Your task to perform on an android device: Check the settings for the Google Play Movies app Image 0: 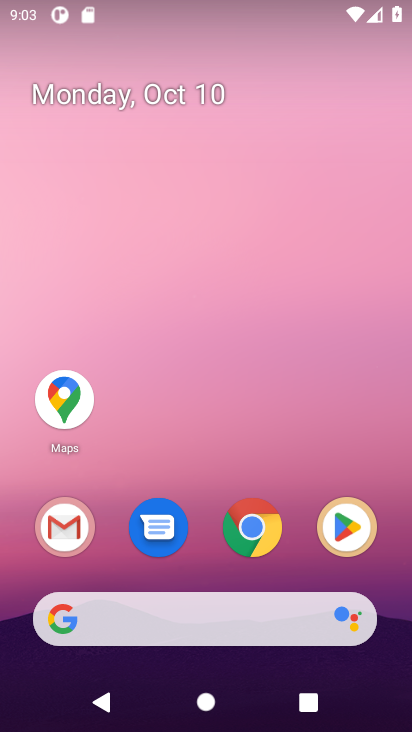
Step 0: drag from (244, 575) to (305, 8)
Your task to perform on an android device: Check the settings for the Google Play Movies app Image 1: 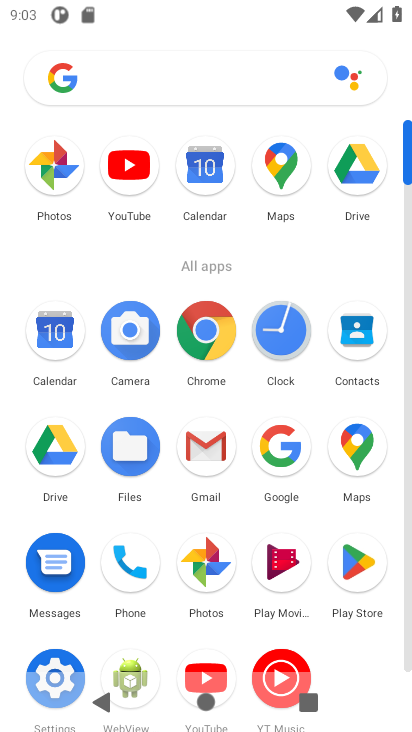
Step 1: click (279, 575)
Your task to perform on an android device: Check the settings for the Google Play Movies app Image 2: 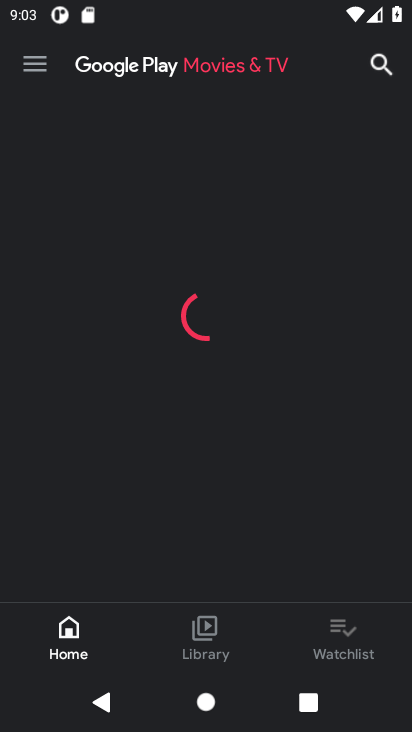
Step 2: click (33, 66)
Your task to perform on an android device: Check the settings for the Google Play Movies app Image 3: 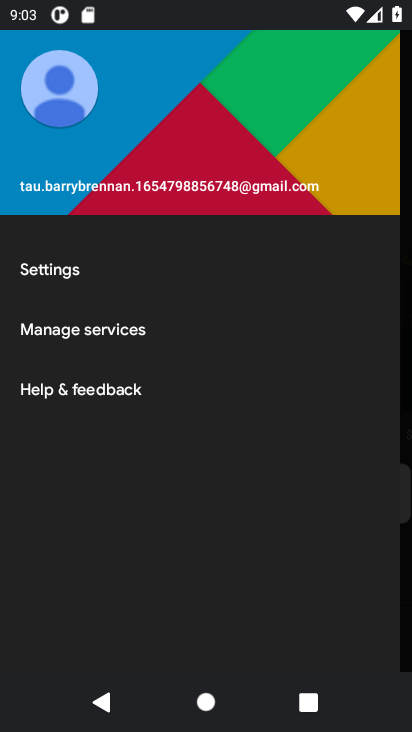
Step 3: click (75, 262)
Your task to perform on an android device: Check the settings for the Google Play Movies app Image 4: 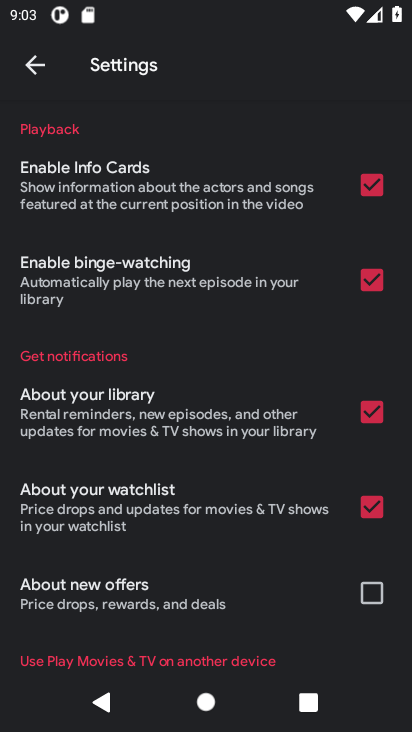
Step 4: click (374, 599)
Your task to perform on an android device: Check the settings for the Google Play Movies app Image 5: 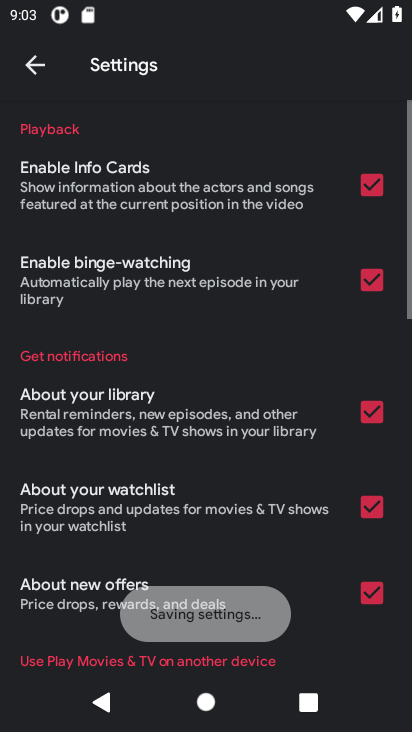
Step 5: click (374, 599)
Your task to perform on an android device: Check the settings for the Google Play Movies app Image 6: 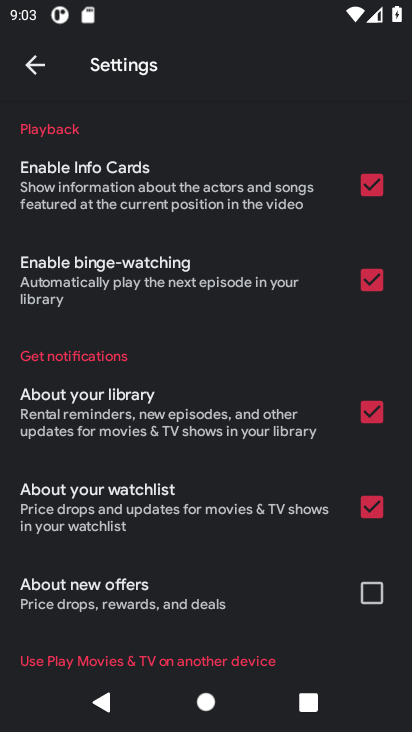
Step 6: drag from (331, 577) to (362, 226)
Your task to perform on an android device: Check the settings for the Google Play Movies app Image 7: 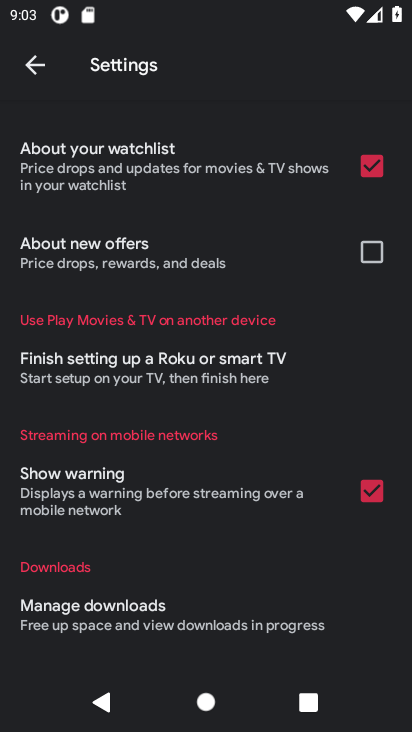
Step 7: click (374, 489)
Your task to perform on an android device: Check the settings for the Google Play Movies app Image 8: 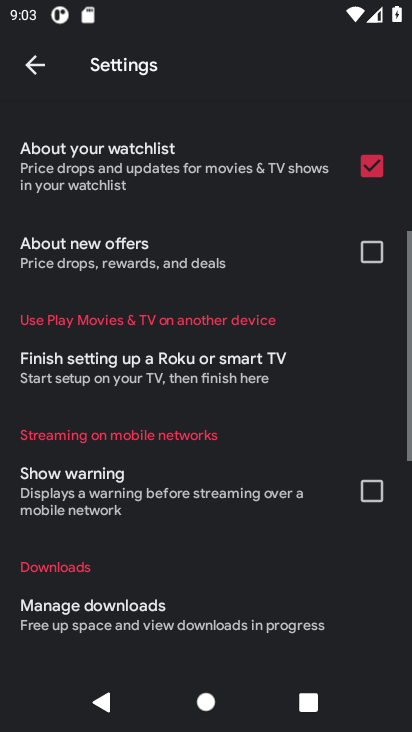
Step 8: click (374, 489)
Your task to perform on an android device: Check the settings for the Google Play Movies app Image 9: 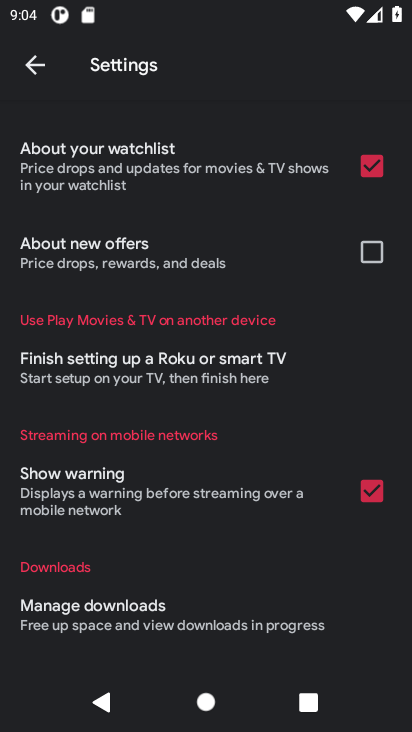
Step 9: drag from (357, 431) to (360, 193)
Your task to perform on an android device: Check the settings for the Google Play Movies app Image 10: 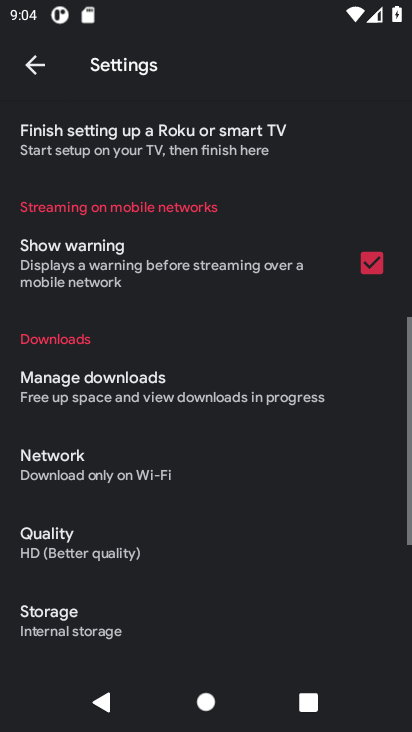
Step 10: drag from (280, 452) to (277, 191)
Your task to perform on an android device: Check the settings for the Google Play Movies app Image 11: 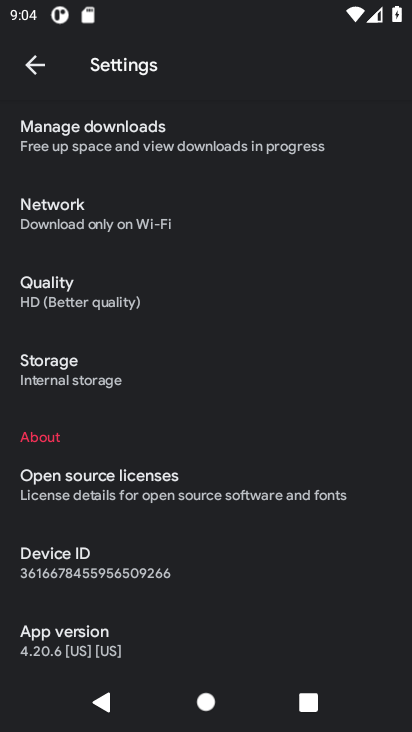
Step 11: drag from (238, 307) to (268, 138)
Your task to perform on an android device: Check the settings for the Google Play Movies app Image 12: 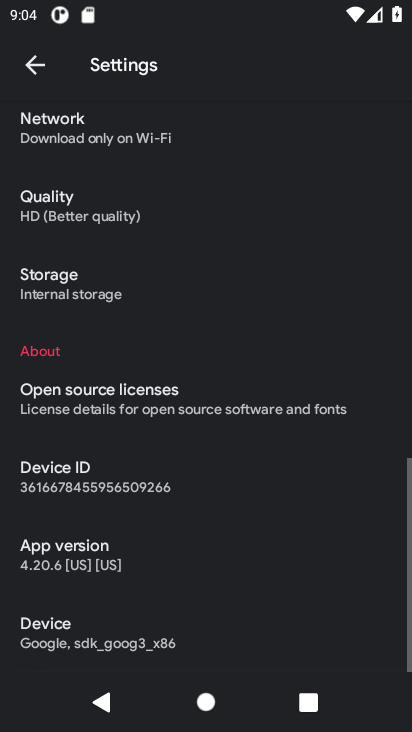
Step 12: drag from (238, 304) to (255, 126)
Your task to perform on an android device: Check the settings for the Google Play Movies app Image 13: 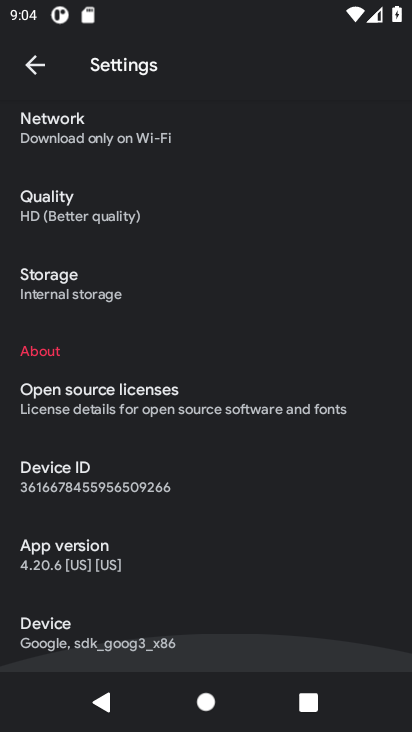
Step 13: drag from (184, 522) to (232, 267)
Your task to perform on an android device: Check the settings for the Google Play Movies app Image 14: 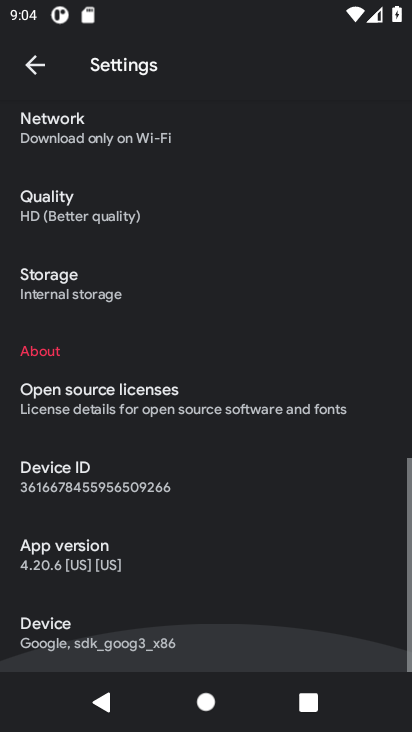
Step 14: drag from (243, 248) to (201, 550)
Your task to perform on an android device: Check the settings for the Google Play Movies app Image 15: 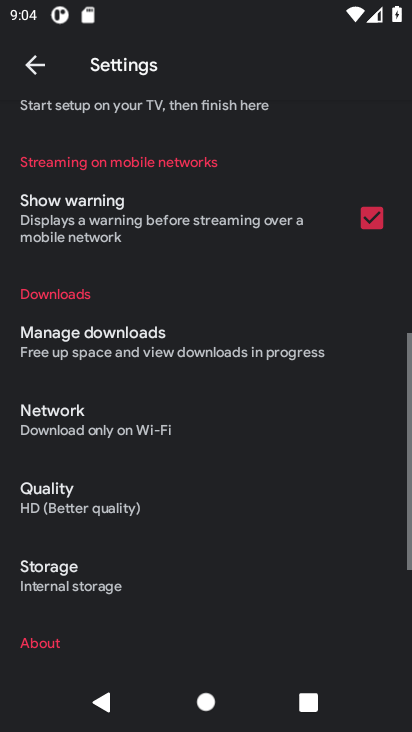
Step 15: drag from (196, 301) to (183, 509)
Your task to perform on an android device: Check the settings for the Google Play Movies app Image 16: 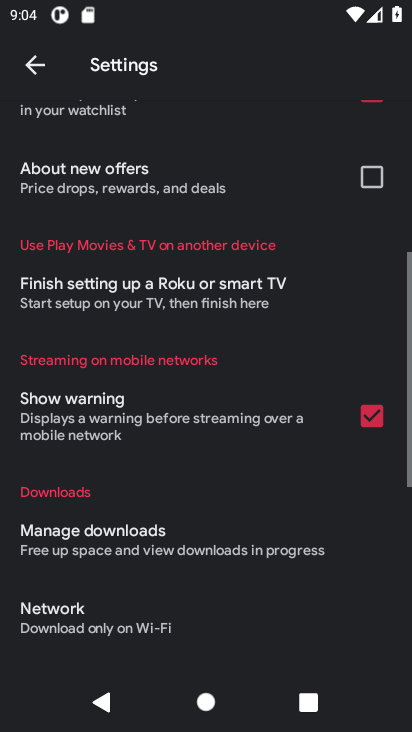
Step 16: drag from (177, 395) to (159, 597)
Your task to perform on an android device: Check the settings for the Google Play Movies app Image 17: 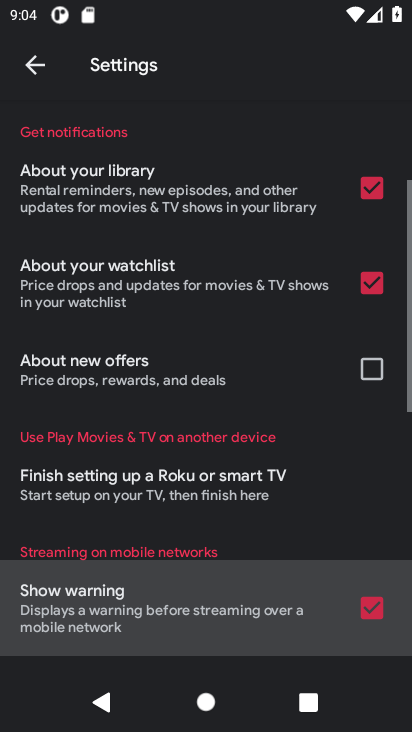
Step 17: drag from (160, 394) to (145, 639)
Your task to perform on an android device: Check the settings for the Google Play Movies app Image 18: 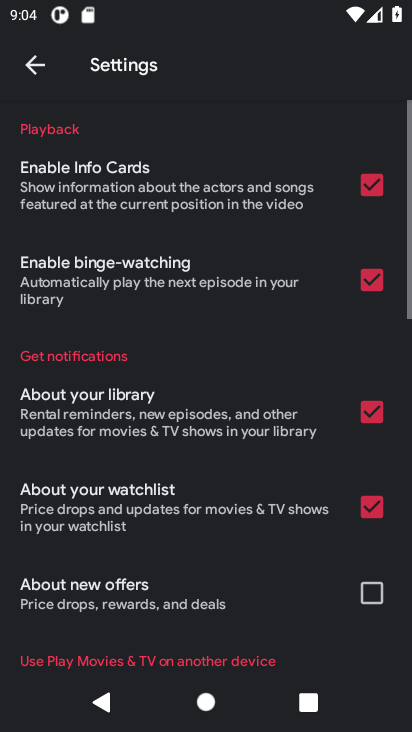
Step 18: drag from (163, 474) to (165, 627)
Your task to perform on an android device: Check the settings for the Google Play Movies app Image 19: 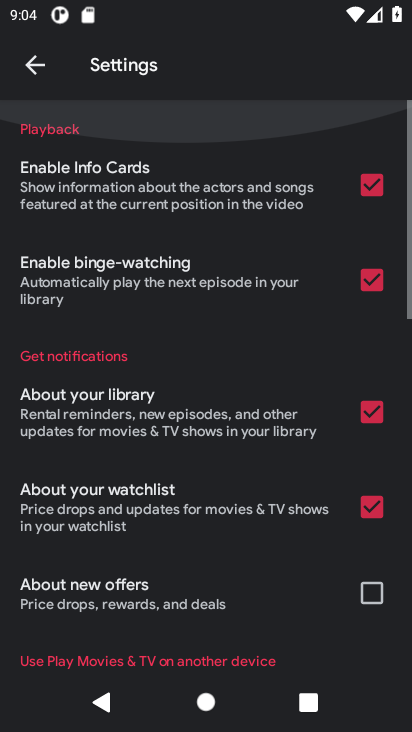
Step 19: drag from (250, 244) to (248, 494)
Your task to perform on an android device: Check the settings for the Google Play Movies app Image 20: 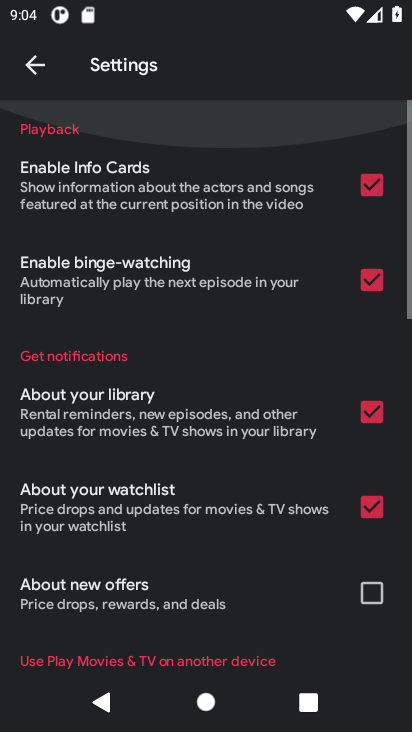
Step 20: drag from (244, 147) to (215, 372)
Your task to perform on an android device: Check the settings for the Google Play Movies app Image 21: 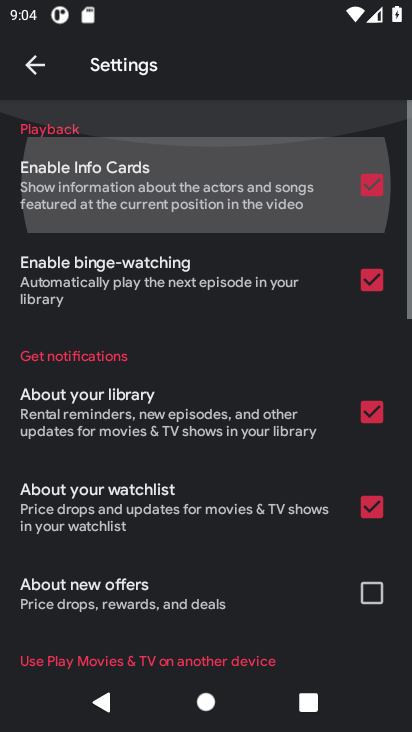
Step 21: drag from (176, 480) to (242, 125)
Your task to perform on an android device: Check the settings for the Google Play Movies app Image 22: 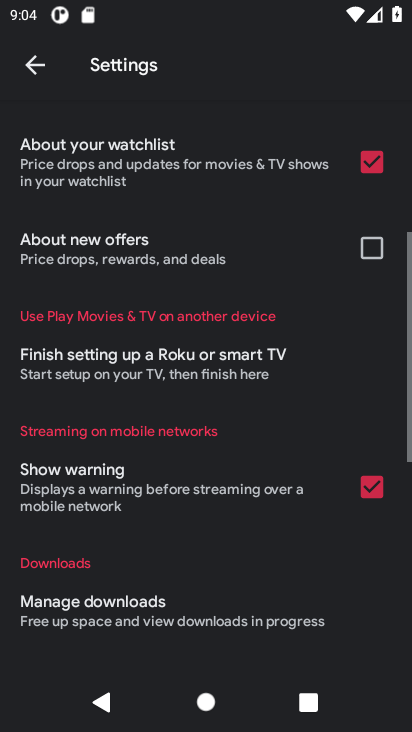
Step 22: drag from (213, 446) to (256, 168)
Your task to perform on an android device: Check the settings for the Google Play Movies app Image 23: 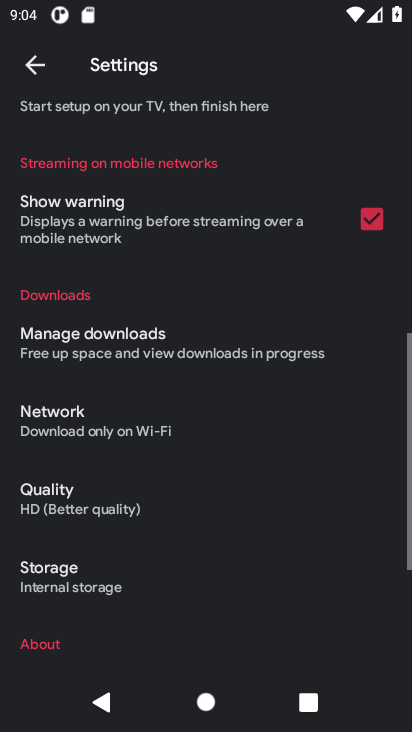
Step 23: drag from (205, 412) to (262, 181)
Your task to perform on an android device: Check the settings for the Google Play Movies app Image 24: 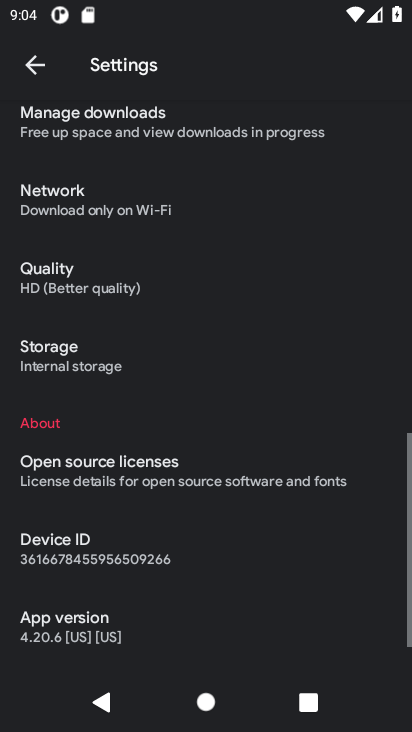
Step 24: drag from (248, 372) to (208, 206)
Your task to perform on an android device: Check the settings for the Google Play Movies app Image 25: 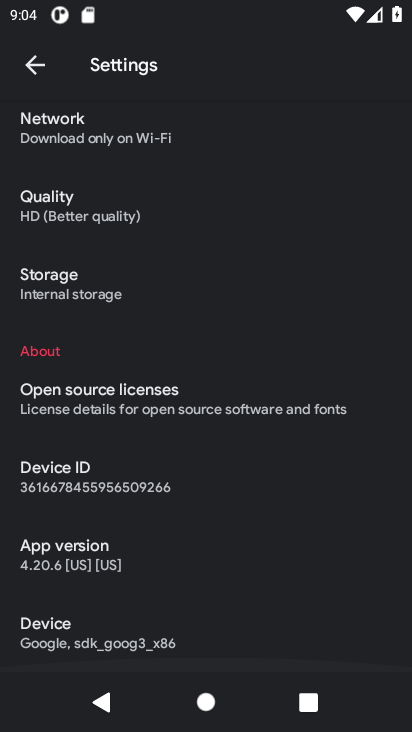
Step 25: drag from (201, 385) to (199, 251)
Your task to perform on an android device: Check the settings for the Google Play Movies app Image 26: 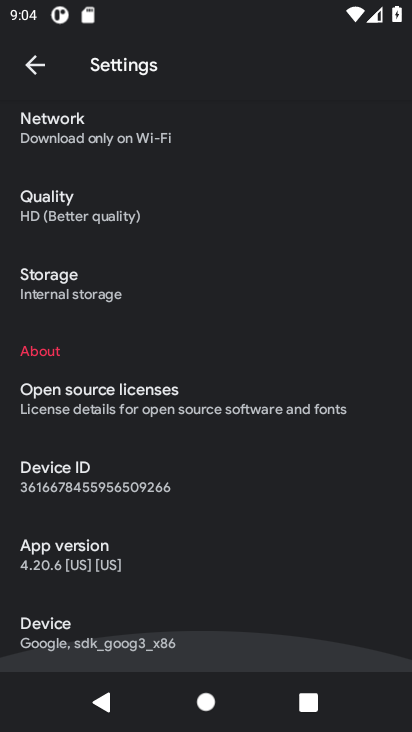
Step 26: drag from (198, 413) to (202, 212)
Your task to perform on an android device: Check the settings for the Google Play Movies app Image 27: 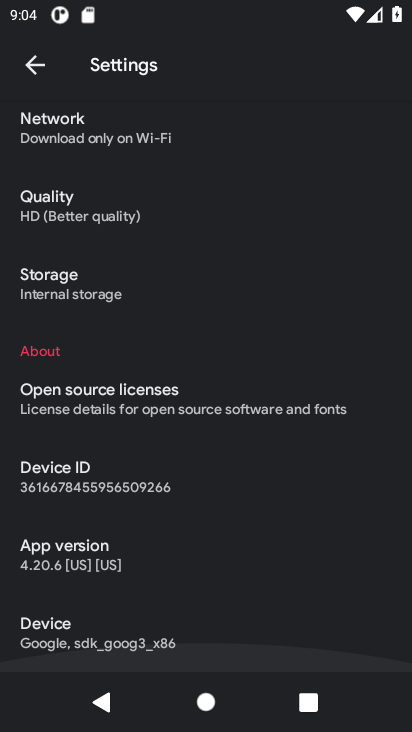
Step 27: drag from (196, 392) to (228, 249)
Your task to perform on an android device: Check the settings for the Google Play Movies app Image 28: 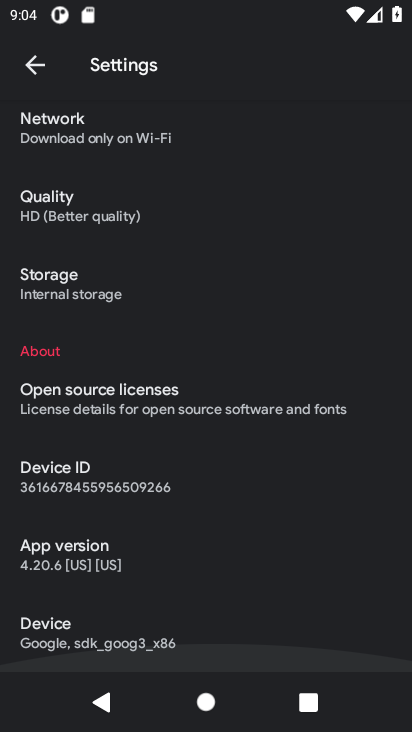
Step 28: drag from (205, 443) to (218, 241)
Your task to perform on an android device: Check the settings for the Google Play Movies app Image 29: 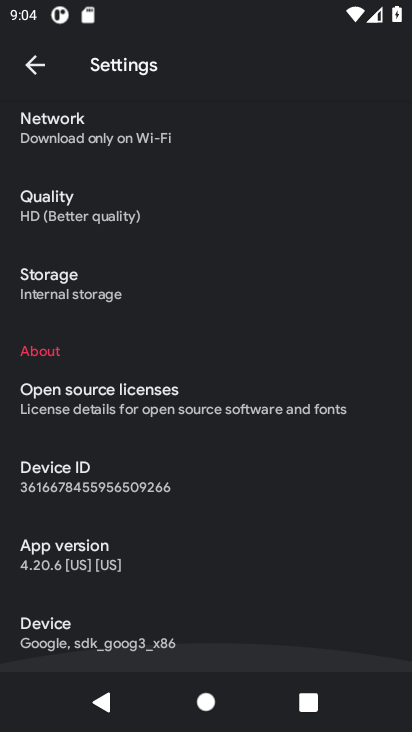
Step 29: drag from (220, 394) to (246, 229)
Your task to perform on an android device: Check the settings for the Google Play Movies app Image 30: 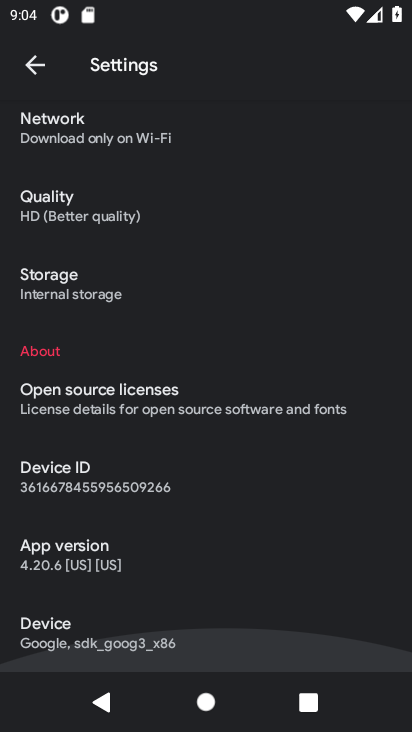
Step 30: drag from (247, 228) to (206, 557)
Your task to perform on an android device: Check the settings for the Google Play Movies app Image 31: 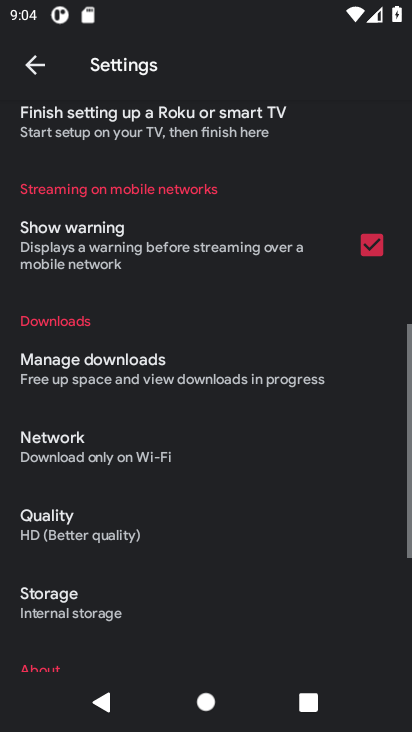
Step 31: drag from (226, 294) to (226, 517)
Your task to perform on an android device: Check the settings for the Google Play Movies app Image 32: 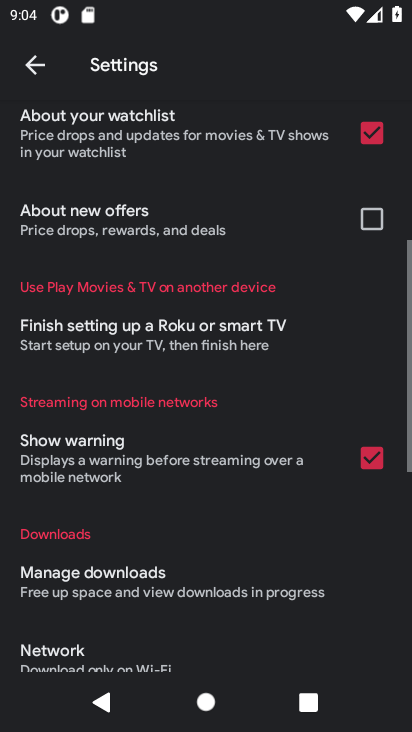
Step 32: drag from (225, 324) to (227, 452)
Your task to perform on an android device: Check the settings for the Google Play Movies app Image 33: 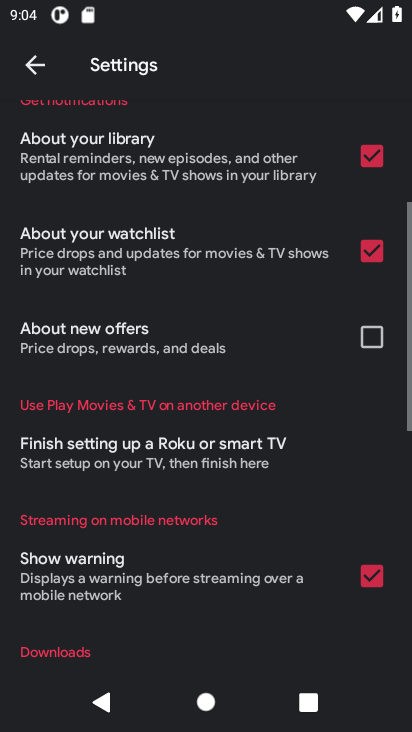
Step 33: drag from (247, 283) to (243, 394)
Your task to perform on an android device: Check the settings for the Google Play Movies app Image 34: 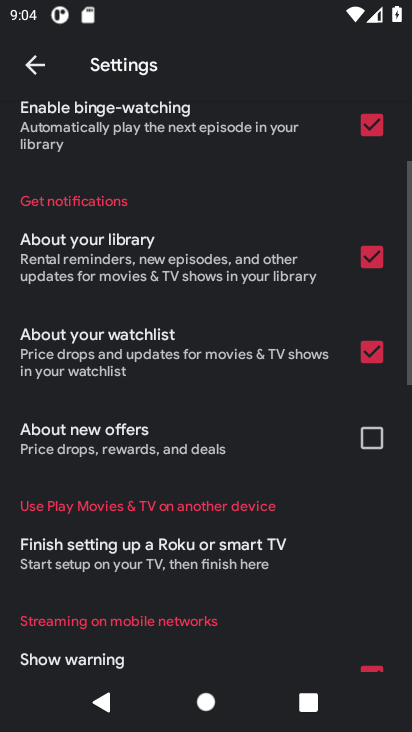
Step 34: drag from (243, 393) to (242, 467)
Your task to perform on an android device: Check the settings for the Google Play Movies app Image 35: 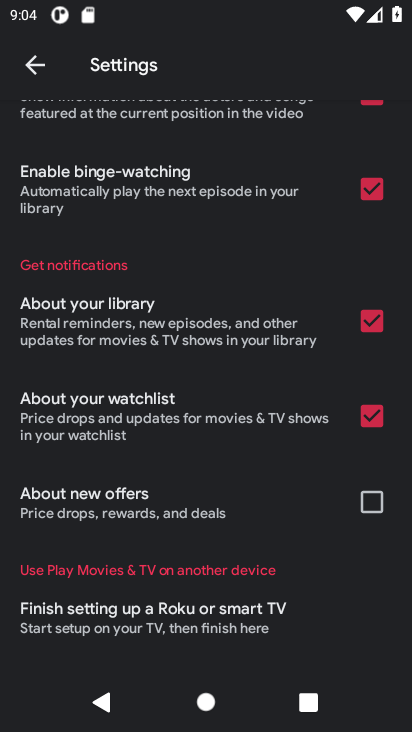
Step 35: drag from (218, 268) to (205, 174)
Your task to perform on an android device: Check the settings for the Google Play Movies app Image 36: 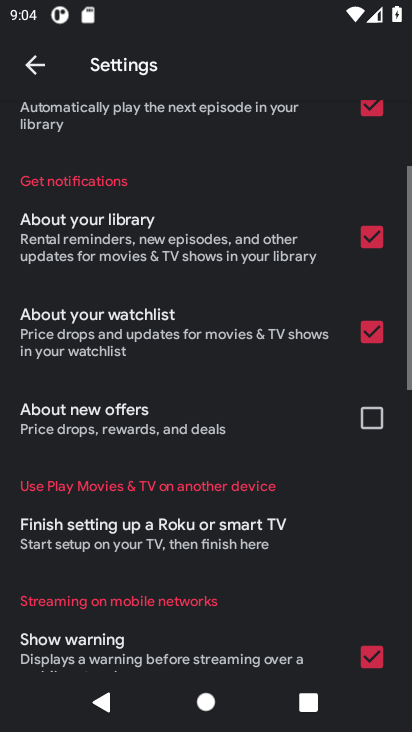
Step 36: drag from (209, 195) to (220, 330)
Your task to perform on an android device: Check the settings for the Google Play Movies app Image 37: 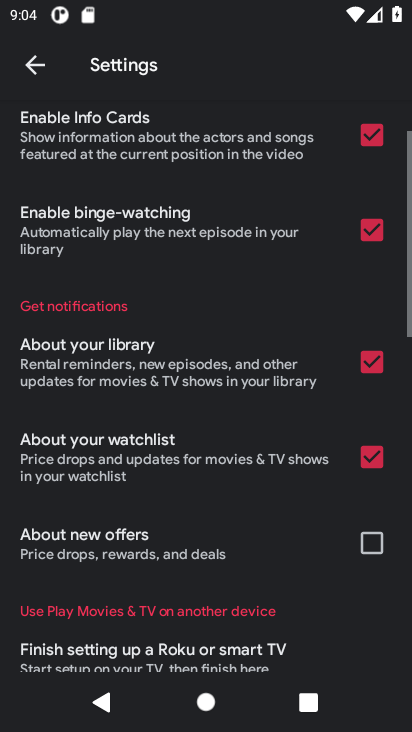
Step 37: drag from (200, 267) to (197, 218)
Your task to perform on an android device: Check the settings for the Google Play Movies app Image 38: 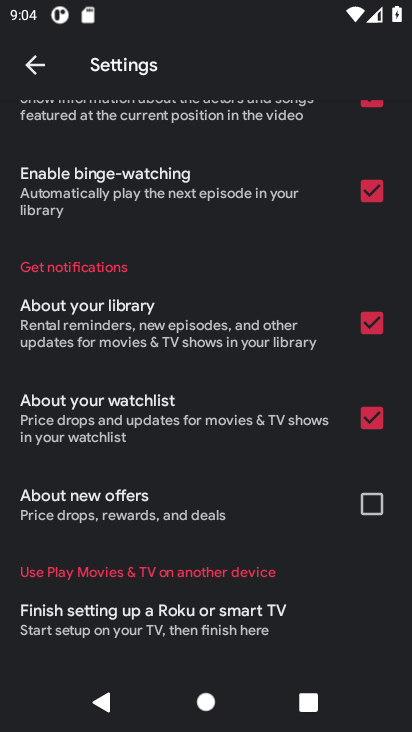
Step 38: click (199, 288)
Your task to perform on an android device: Check the settings for the Google Play Movies app Image 39: 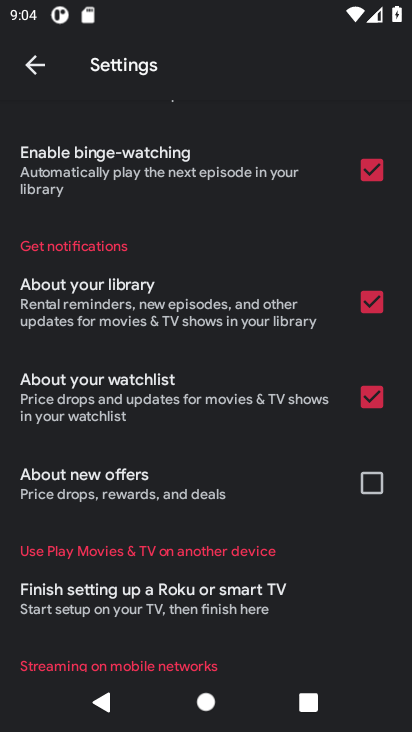
Step 39: drag from (200, 271) to (208, 313)
Your task to perform on an android device: Check the settings for the Google Play Movies app Image 40: 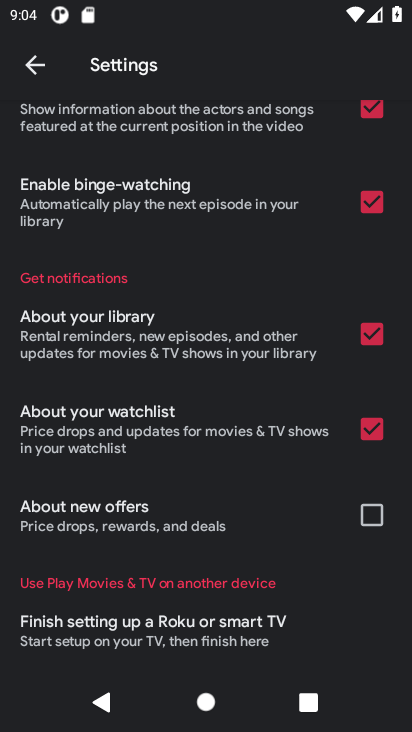
Step 40: drag from (208, 313) to (199, 260)
Your task to perform on an android device: Check the settings for the Google Play Movies app Image 41: 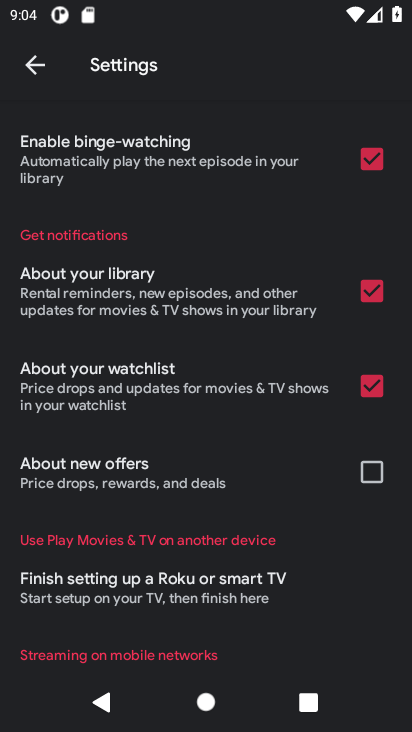
Step 41: click (200, 266)
Your task to perform on an android device: Check the settings for the Google Play Movies app Image 42: 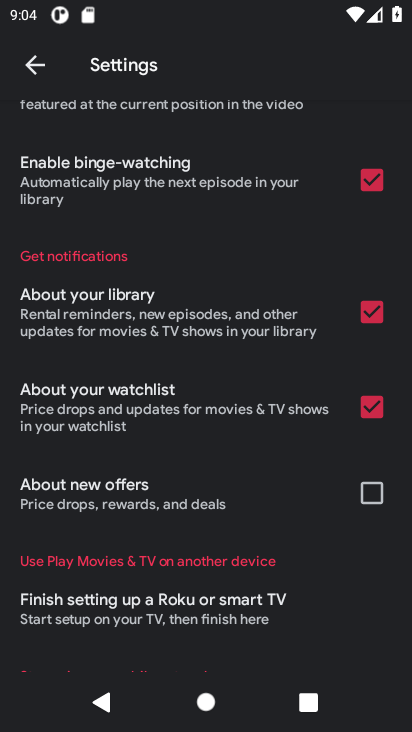
Step 42: click (203, 292)
Your task to perform on an android device: Check the settings for the Google Play Movies app Image 43: 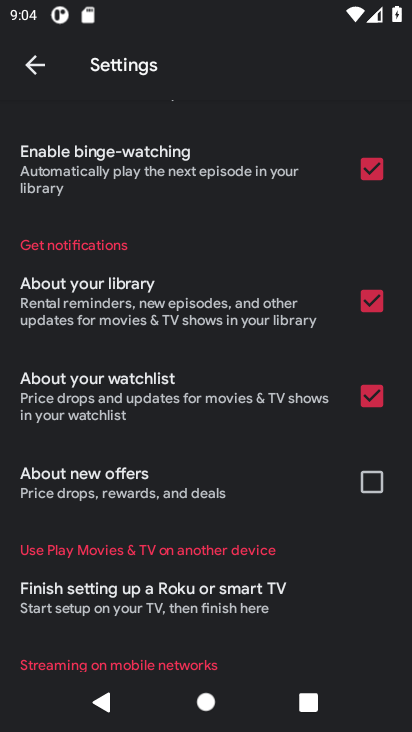
Step 43: click (200, 275)
Your task to perform on an android device: Check the settings for the Google Play Movies app Image 44: 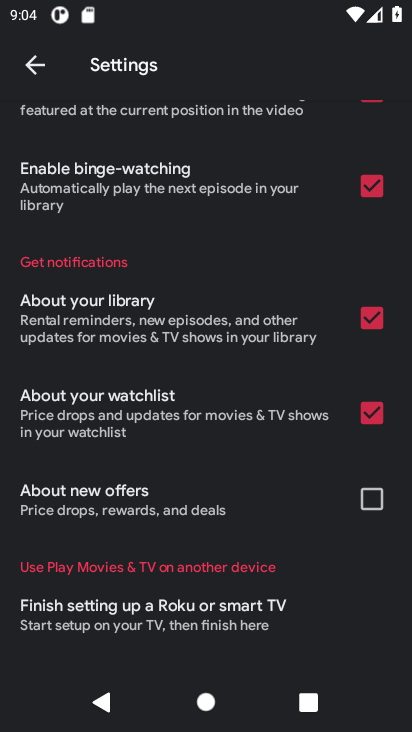
Step 44: drag from (204, 302) to (199, 267)
Your task to perform on an android device: Check the settings for the Google Play Movies app Image 45: 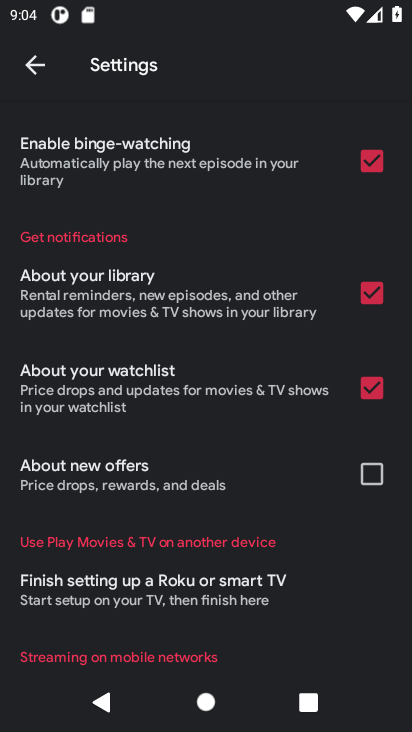
Step 45: click (205, 300)
Your task to perform on an android device: Check the settings for the Google Play Movies app Image 46: 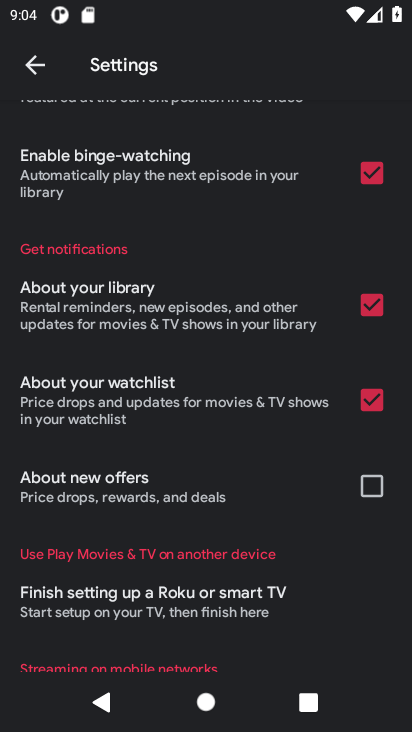
Step 46: click (207, 322)
Your task to perform on an android device: Check the settings for the Google Play Movies app Image 47: 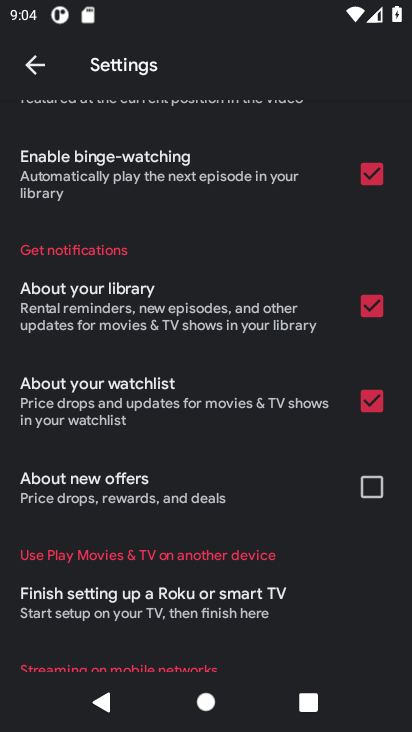
Step 47: click (209, 338)
Your task to perform on an android device: Check the settings for the Google Play Movies app Image 48: 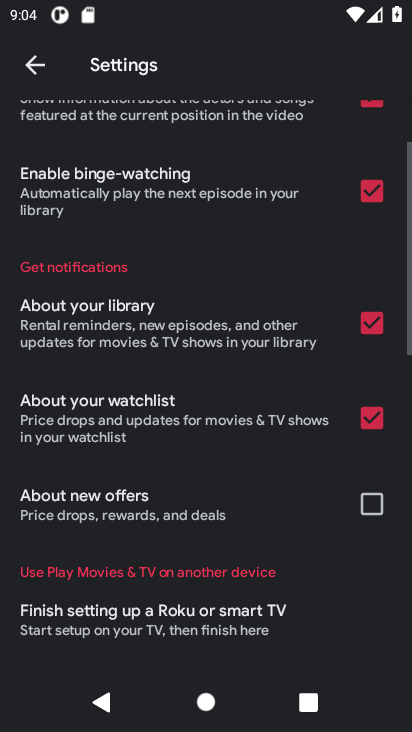
Step 48: drag from (210, 346) to (197, 245)
Your task to perform on an android device: Check the settings for the Google Play Movies app Image 49: 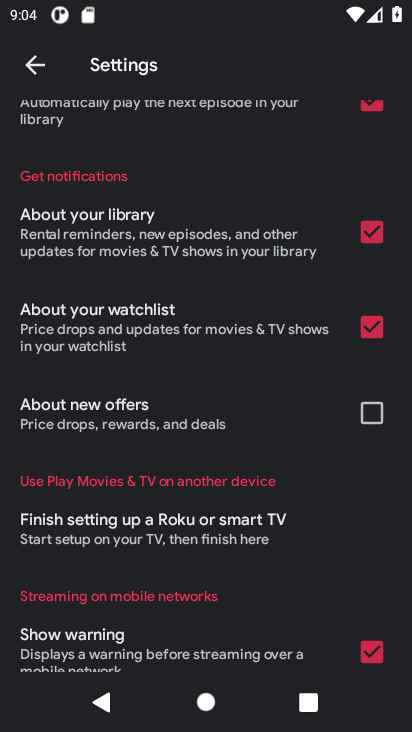
Step 49: click (170, 149)
Your task to perform on an android device: Check the settings for the Google Play Movies app Image 50: 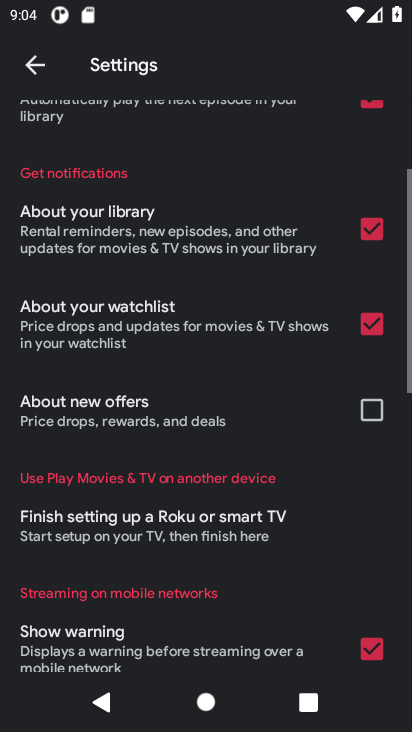
Step 50: click (181, 230)
Your task to perform on an android device: Check the settings for the Google Play Movies app Image 51: 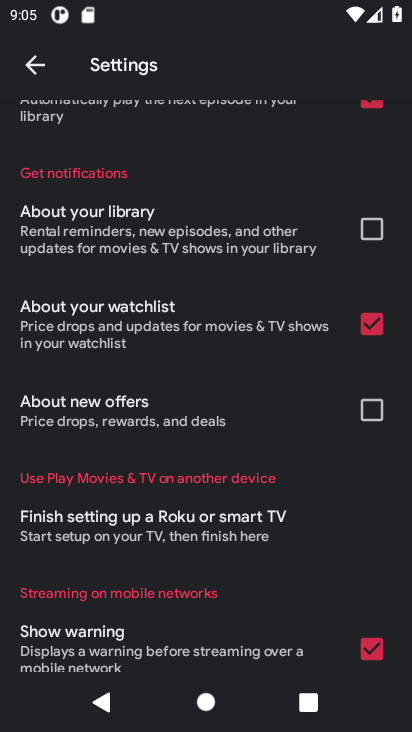
Step 51: click (359, 225)
Your task to perform on an android device: Check the settings for the Google Play Movies app Image 52: 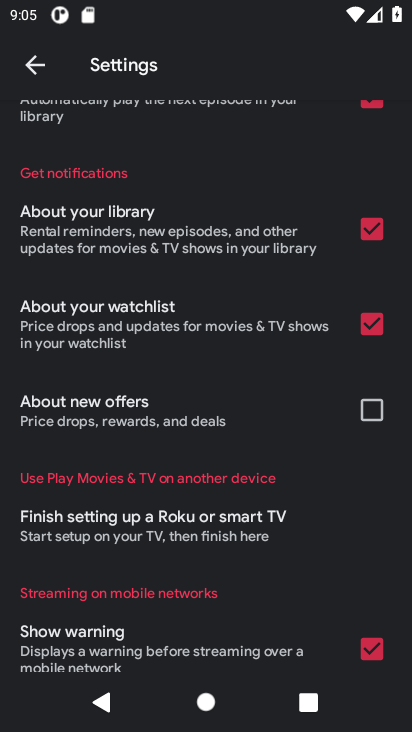
Step 52: click (36, 66)
Your task to perform on an android device: Check the settings for the Google Play Movies app Image 53: 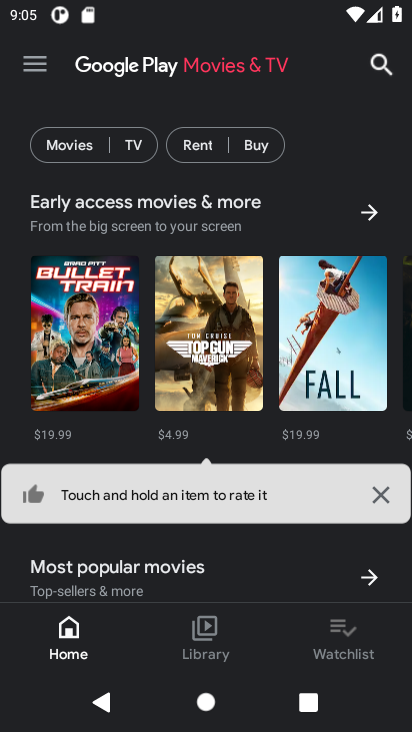
Step 53: drag from (76, 162) to (100, 229)
Your task to perform on an android device: Check the settings for the Google Play Movies app Image 54: 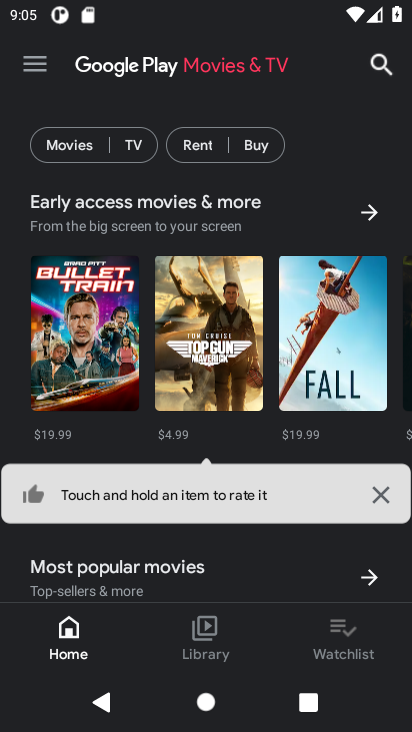
Step 54: drag from (97, 196) to (93, 148)
Your task to perform on an android device: Check the settings for the Google Play Movies app Image 55: 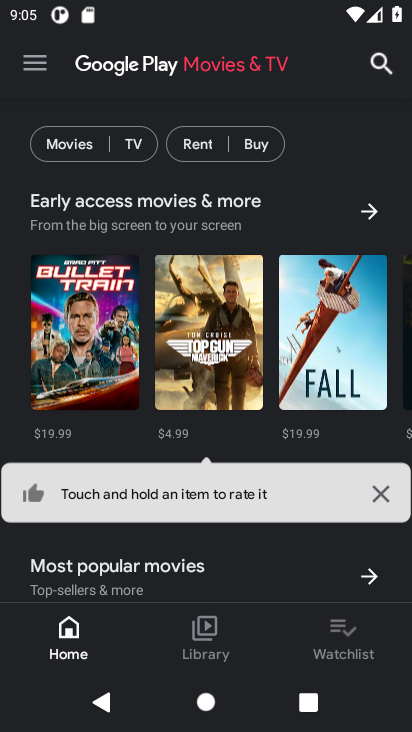
Step 55: drag from (123, 256) to (116, 219)
Your task to perform on an android device: Check the settings for the Google Play Movies app Image 56: 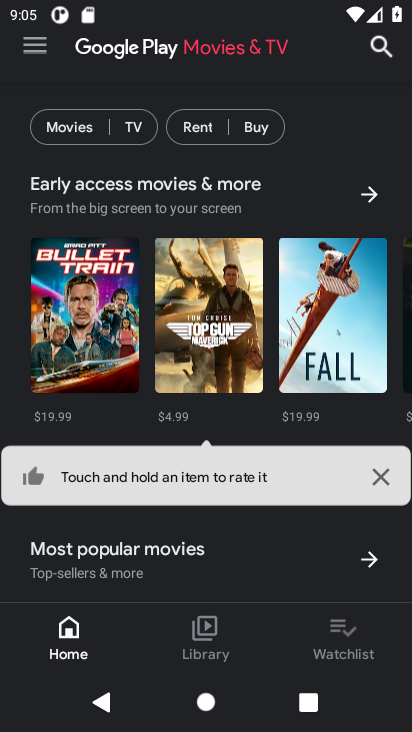
Step 56: click (111, 183)
Your task to perform on an android device: Check the settings for the Google Play Movies app Image 57: 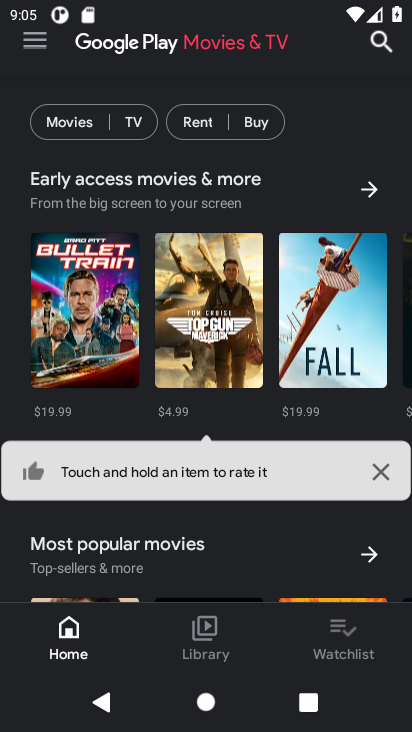
Step 57: drag from (136, 238) to (132, 201)
Your task to perform on an android device: Check the settings for the Google Play Movies app Image 58: 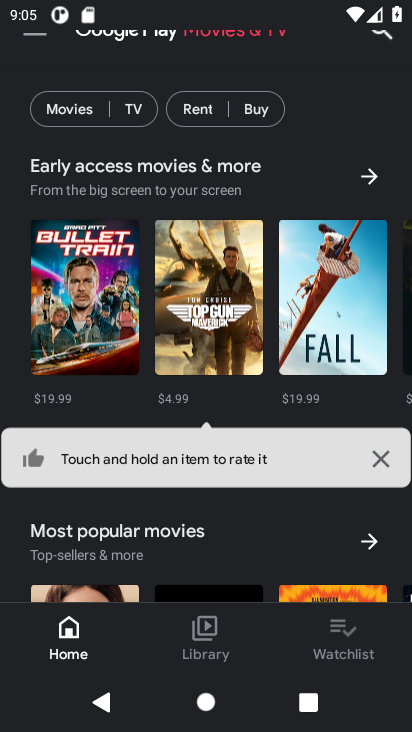
Step 58: drag from (126, 175) to (118, 113)
Your task to perform on an android device: Check the settings for the Google Play Movies app Image 59: 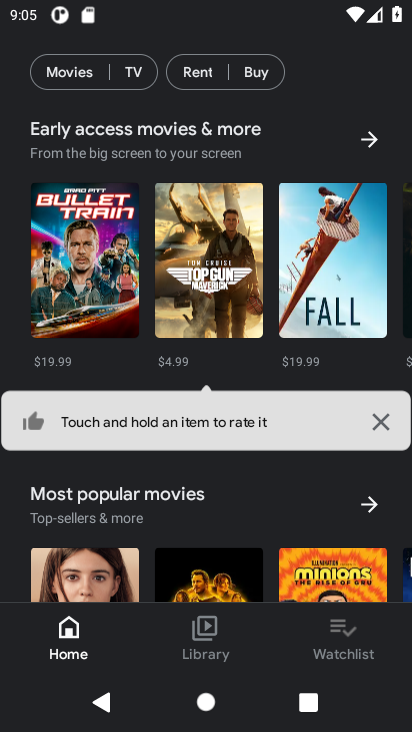
Step 59: click (169, 209)
Your task to perform on an android device: Check the settings for the Google Play Movies app Image 60: 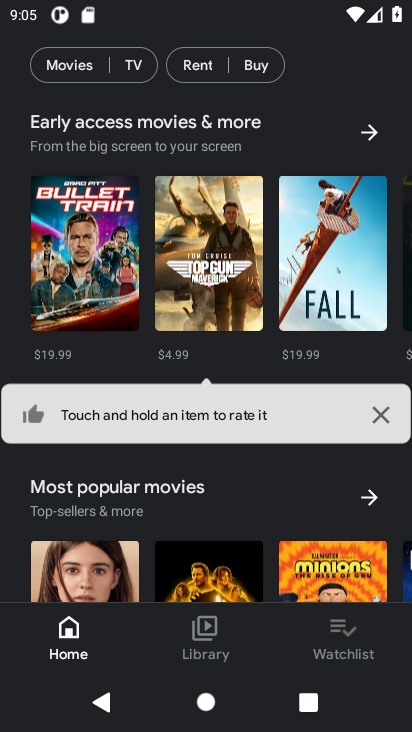
Step 60: drag from (237, 311) to (223, 240)
Your task to perform on an android device: Check the settings for the Google Play Movies app Image 61: 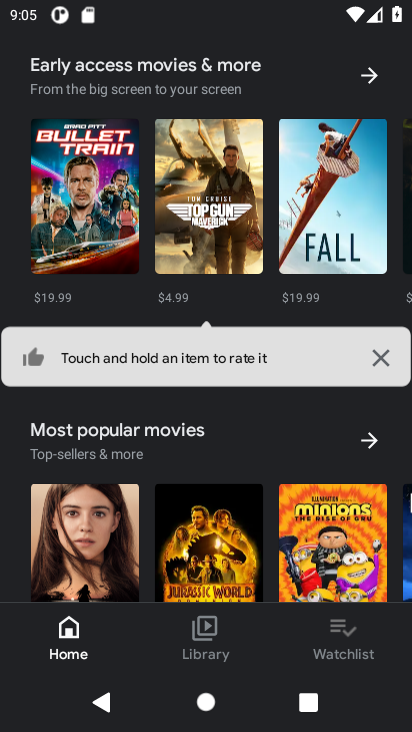
Step 61: click (317, 541)
Your task to perform on an android device: Check the settings for the Google Play Movies app Image 62: 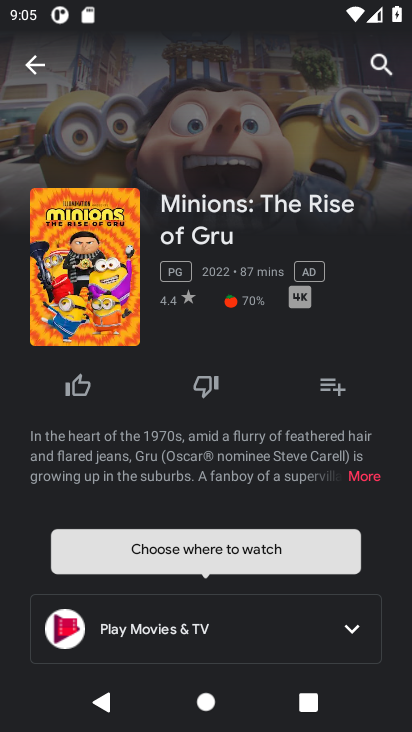
Step 62: drag from (275, 393) to (267, 340)
Your task to perform on an android device: Check the settings for the Google Play Movies app Image 63: 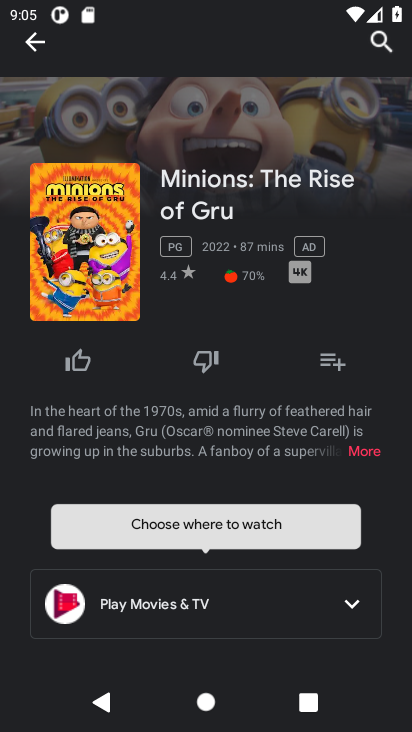
Step 63: drag from (268, 301) to (273, 203)
Your task to perform on an android device: Check the settings for the Google Play Movies app Image 64: 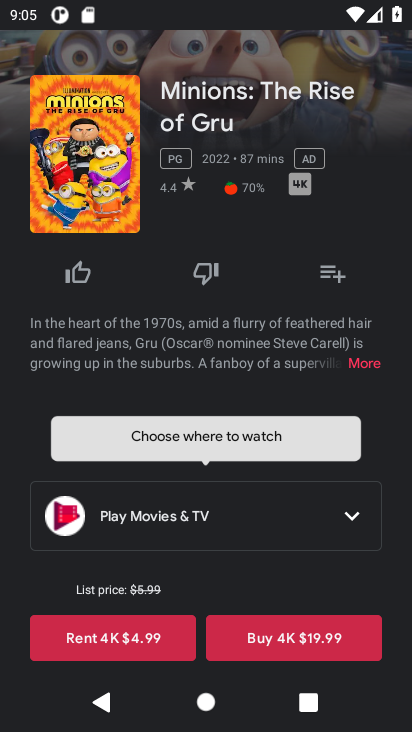
Step 64: drag from (306, 345) to (302, 266)
Your task to perform on an android device: Check the settings for the Google Play Movies app Image 65: 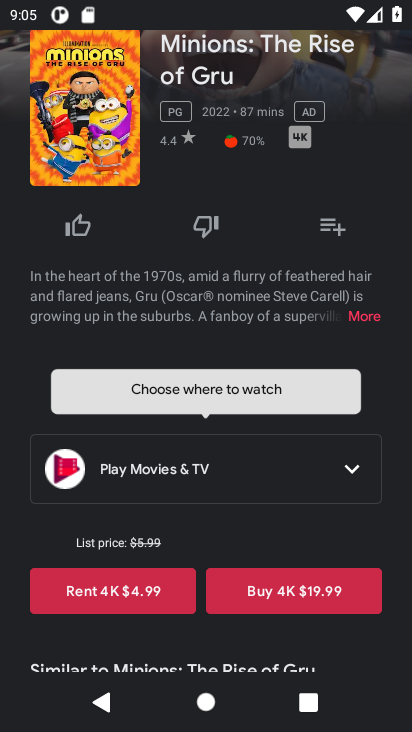
Step 65: drag from (312, 432) to (292, 286)
Your task to perform on an android device: Check the settings for the Google Play Movies app Image 66: 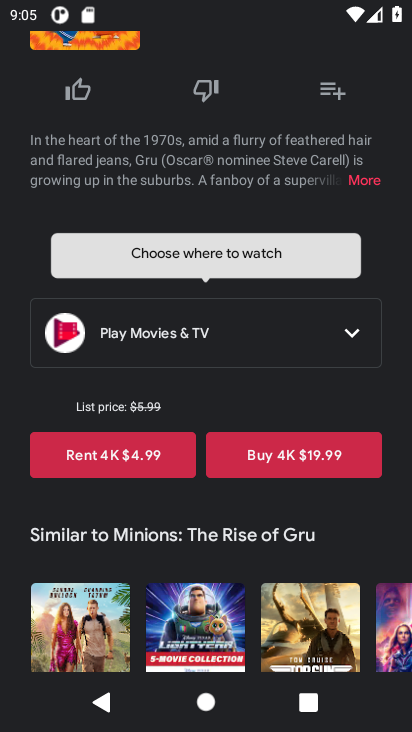
Step 66: drag from (292, 343) to (287, 269)
Your task to perform on an android device: Check the settings for the Google Play Movies app Image 67: 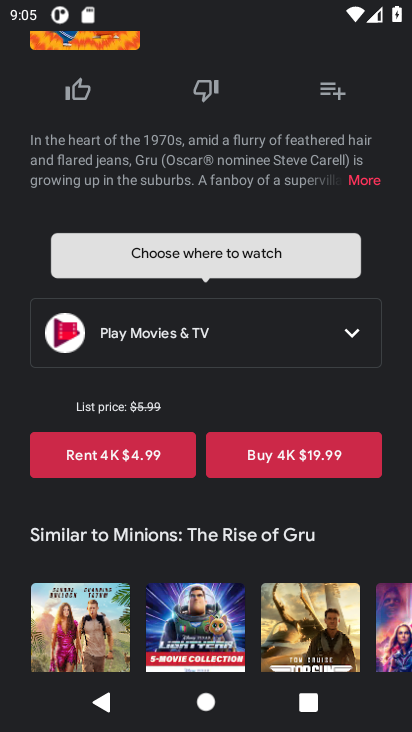
Step 67: drag from (297, 336) to (288, 269)
Your task to perform on an android device: Check the settings for the Google Play Movies app Image 68: 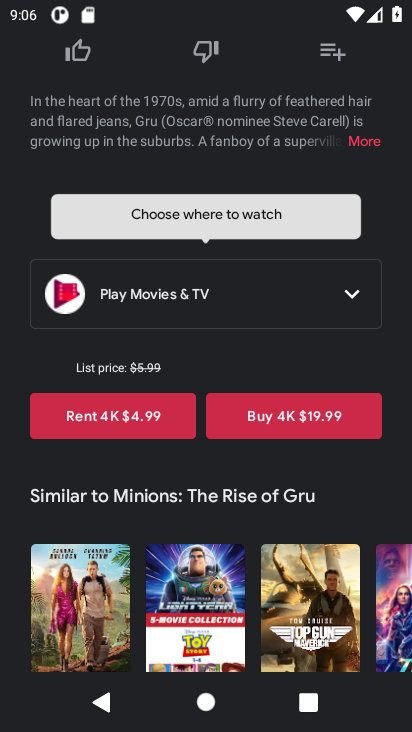
Step 68: click (290, 285)
Your task to perform on an android device: Check the settings for the Google Play Movies app Image 69: 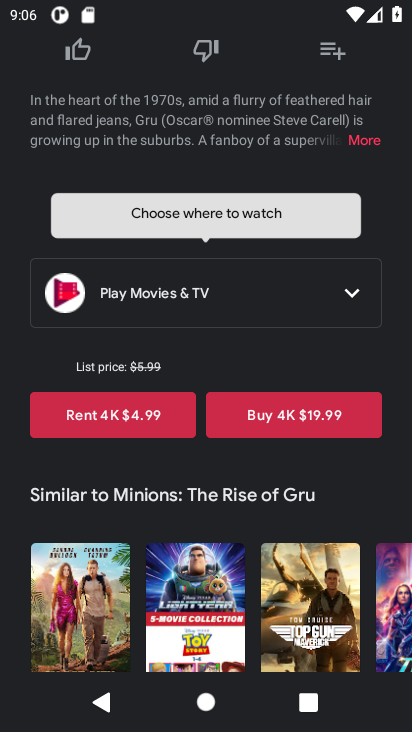
Step 69: task complete